Your task to perform on an android device: Go to Google Image 0: 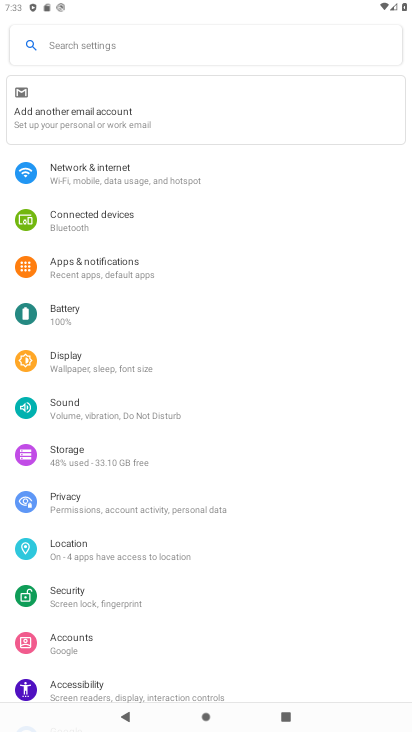
Step 0: press home button
Your task to perform on an android device: Go to Google Image 1: 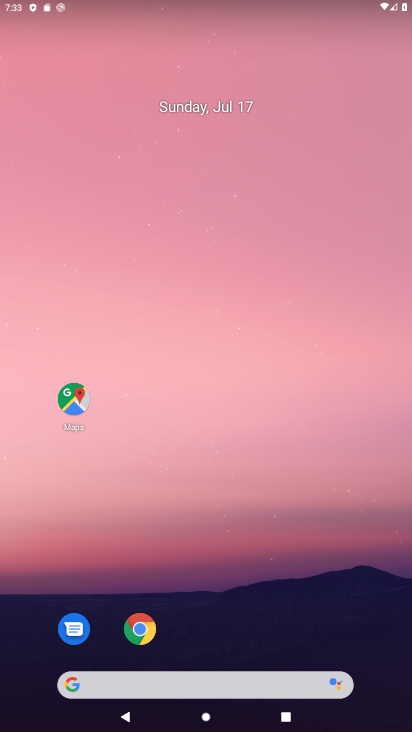
Step 1: drag from (244, 467) to (251, 130)
Your task to perform on an android device: Go to Google Image 2: 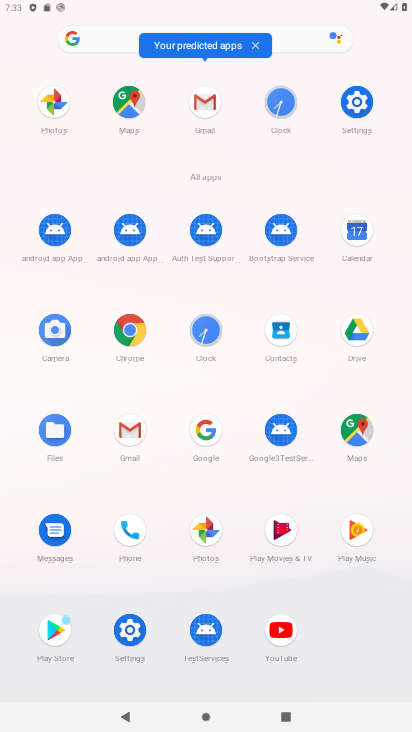
Step 2: click (206, 432)
Your task to perform on an android device: Go to Google Image 3: 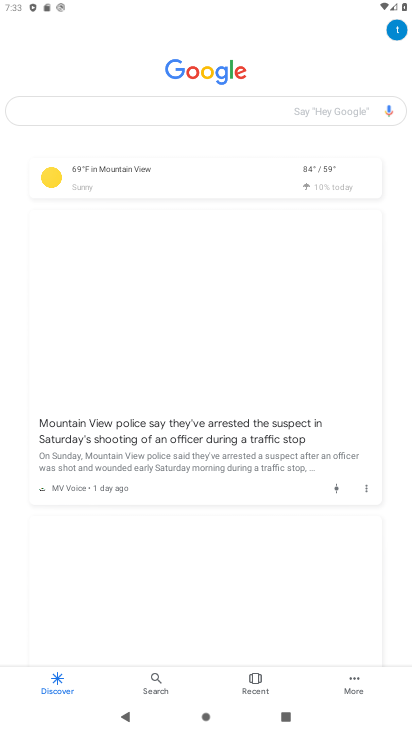
Step 3: task complete